Your task to perform on an android device: When is my next appointment? Image 0: 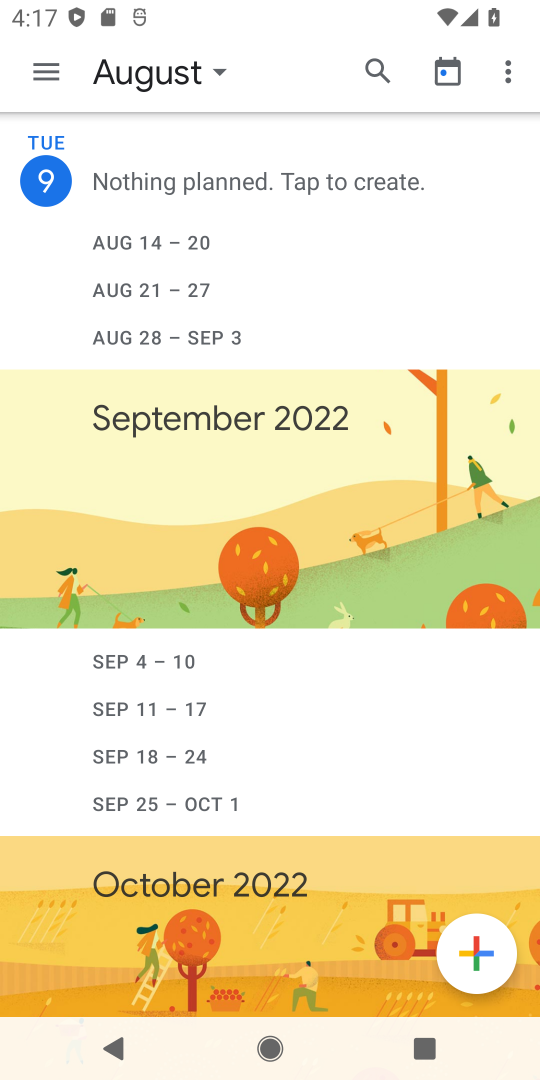
Step 0: press home button
Your task to perform on an android device: When is my next appointment? Image 1: 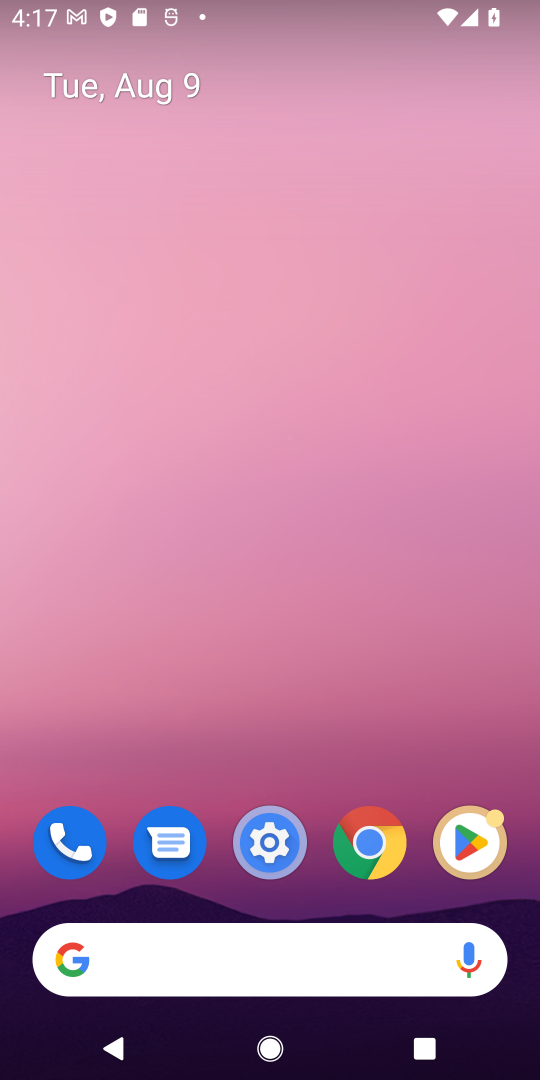
Step 1: drag from (306, 966) to (227, 773)
Your task to perform on an android device: When is my next appointment? Image 2: 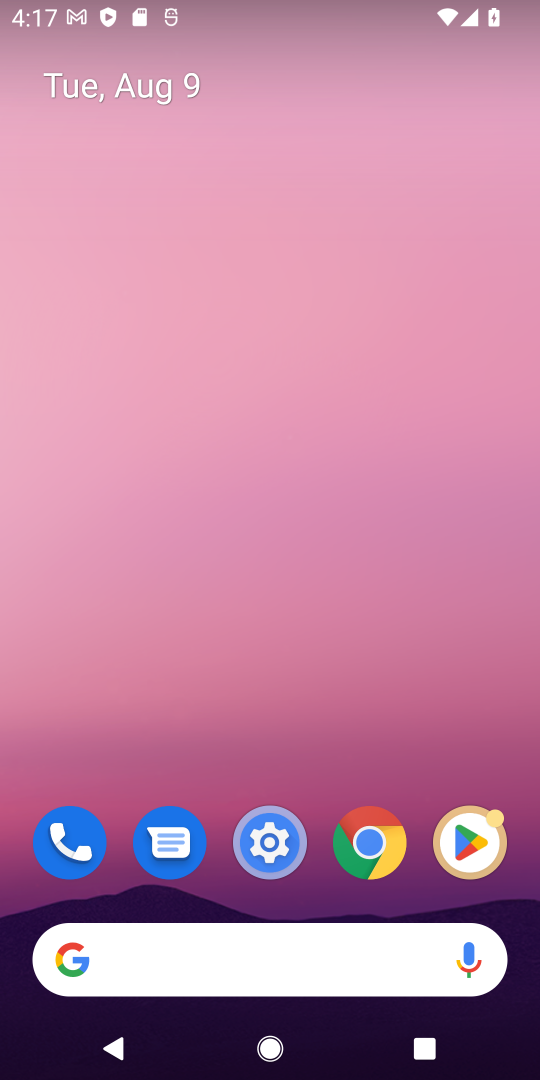
Step 2: click (377, 936)
Your task to perform on an android device: When is my next appointment? Image 3: 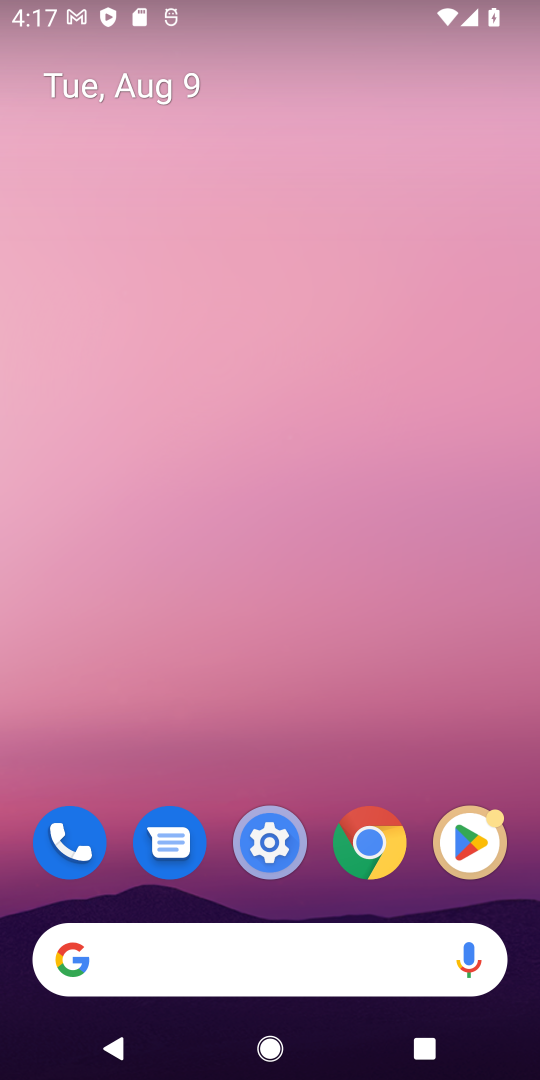
Step 3: drag from (333, 941) to (539, 212)
Your task to perform on an android device: When is my next appointment? Image 4: 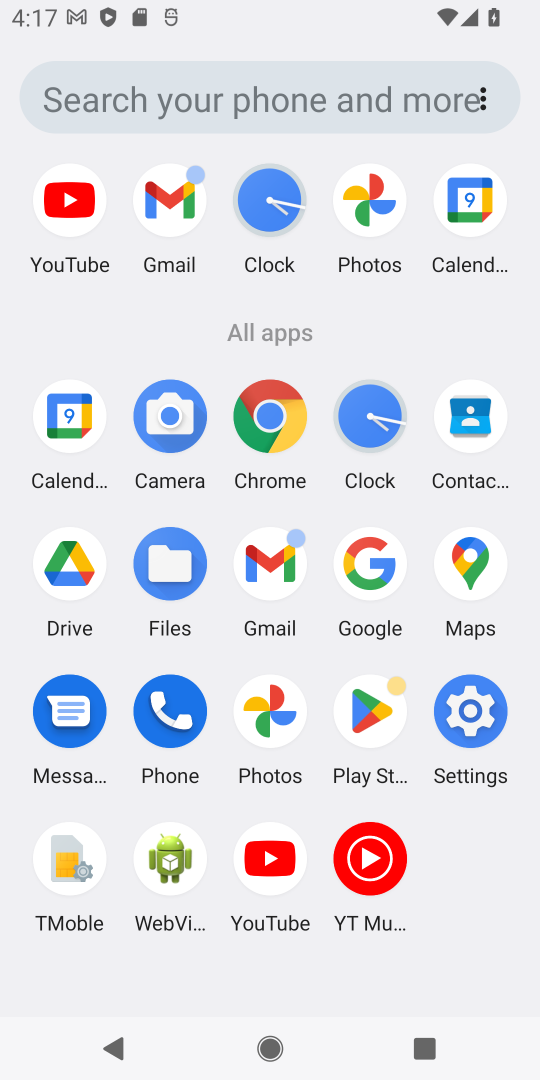
Step 4: click (468, 192)
Your task to perform on an android device: When is my next appointment? Image 5: 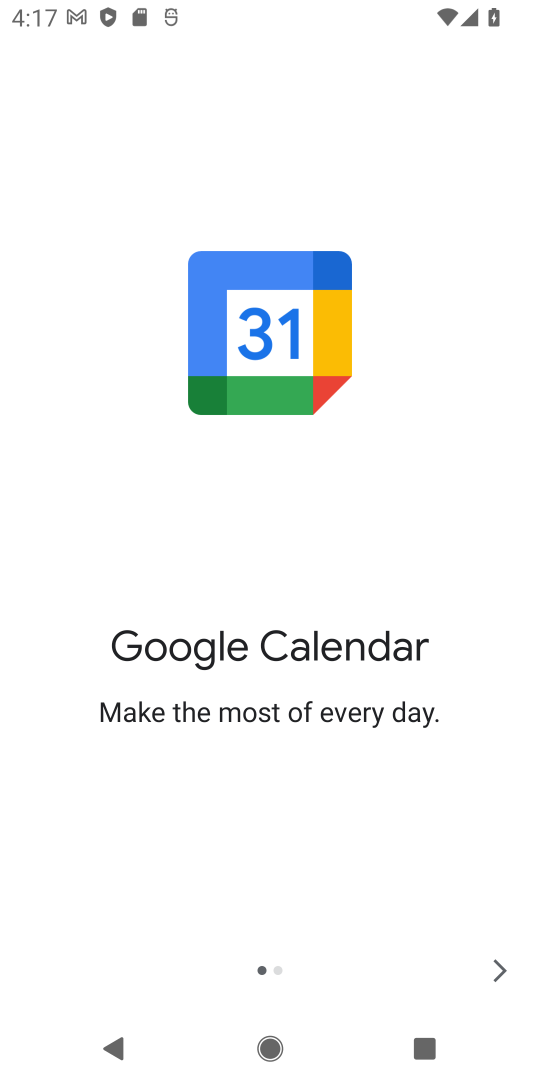
Step 5: click (505, 962)
Your task to perform on an android device: When is my next appointment? Image 6: 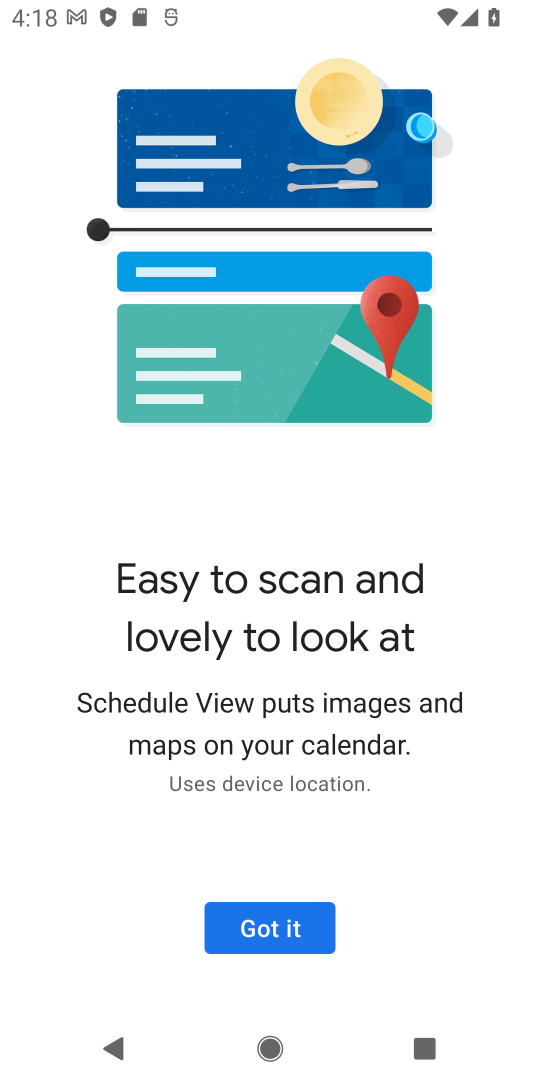
Step 6: click (310, 920)
Your task to perform on an android device: When is my next appointment? Image 7: 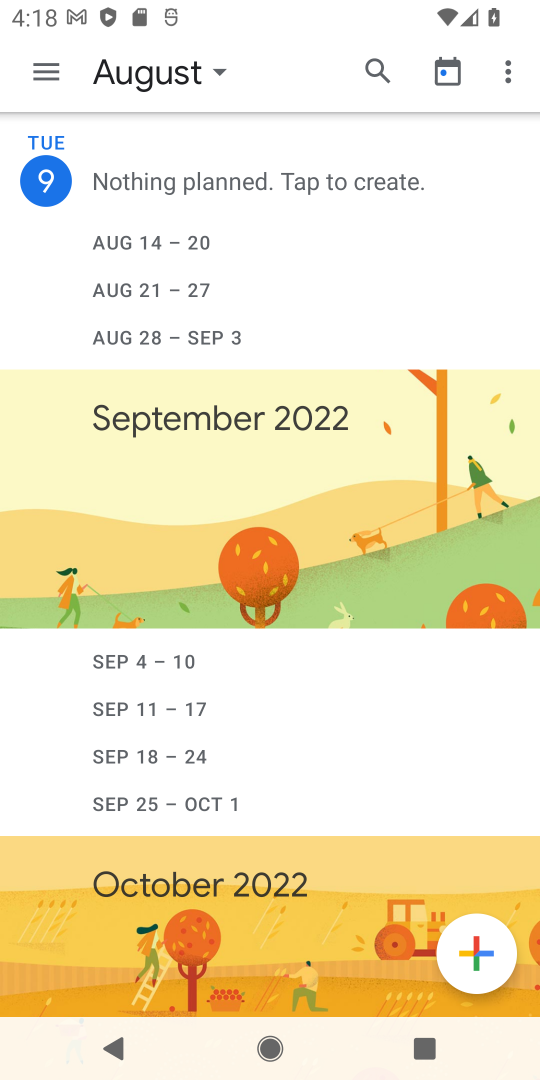
Step 7: click (215, 63)
Your task to perform on an android device: When is my next appointment? Image 8: 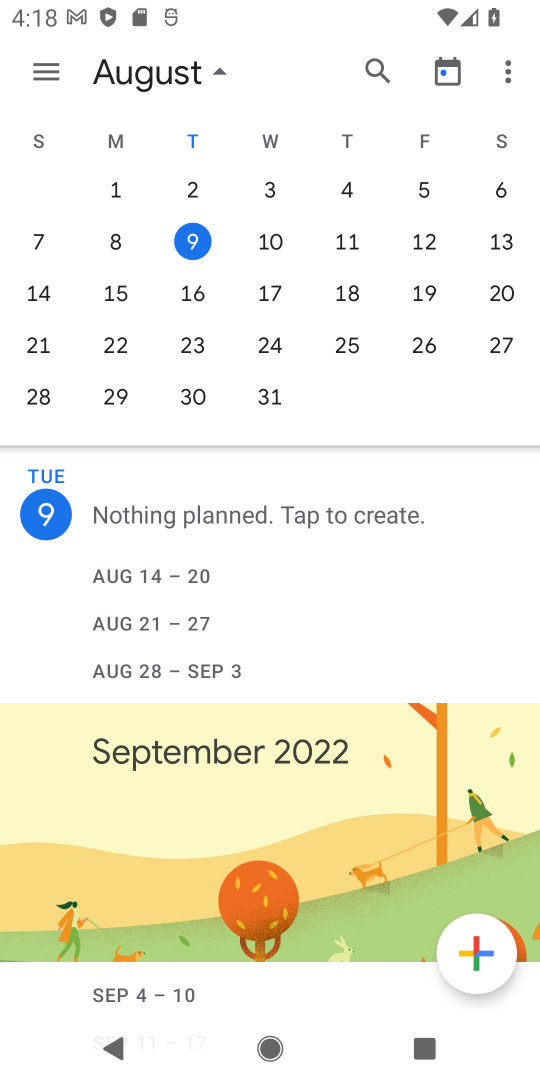
Step 8: click (287, 238)
Your task to perform on an android device: When is my next appointment? Image 9: 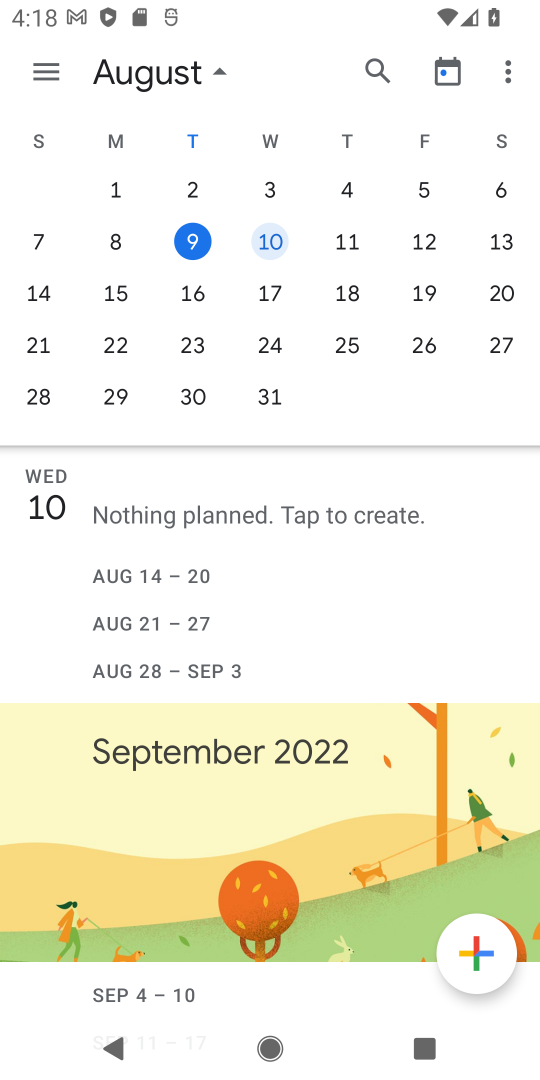
Step 9: task complete